Your task to perform on an android device: Search for seafood restaurants on Google Maps Image 0: 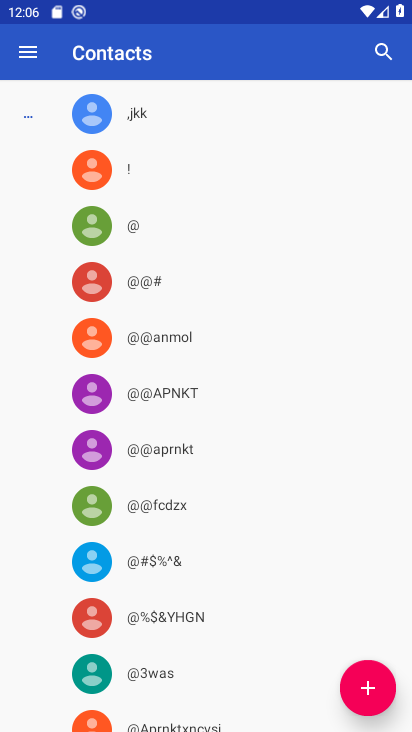
Step 0: press home button
Your task to perform on an android device: Search for seafood restaurants on Google Maps Image 1: 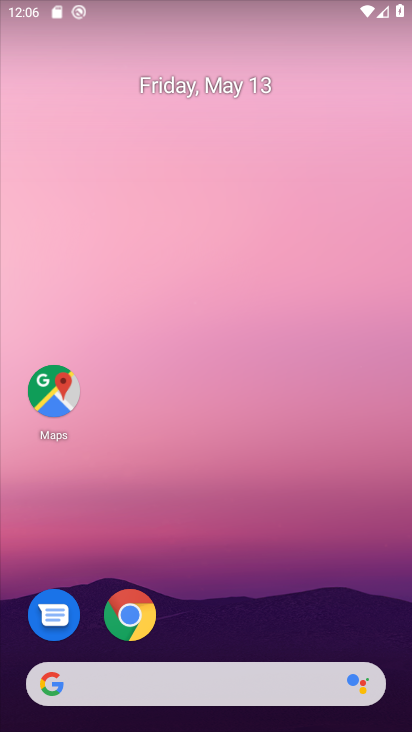
Step 1: click (53, 384)
Your task to perform on an android device: Search for seafood restaurants on Google Maps Image 2: 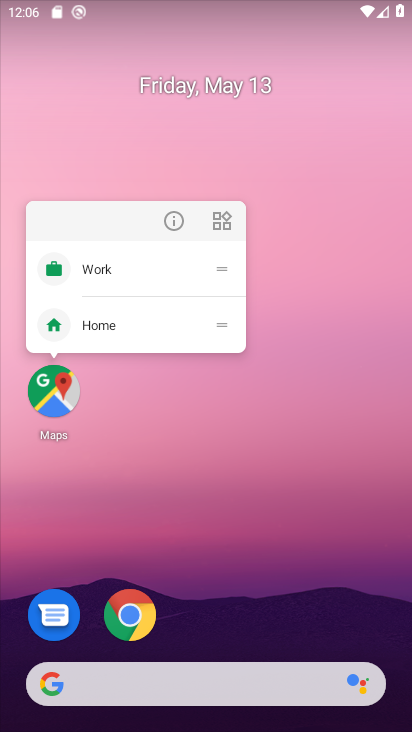
Step 2: click (26, 399)
Your task to perform on an android device: Search for seafood restaurants on Google Maps Image 3: 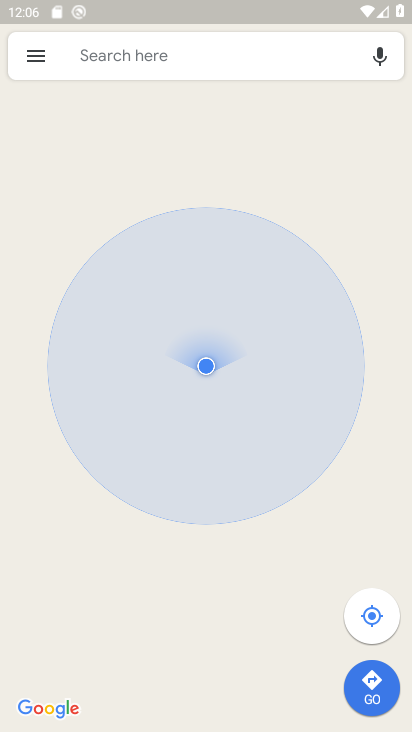
Step 3: click (211, 50)
Your task to perform on an android device: Search for seafood restaurants on Google Maps Image 4: 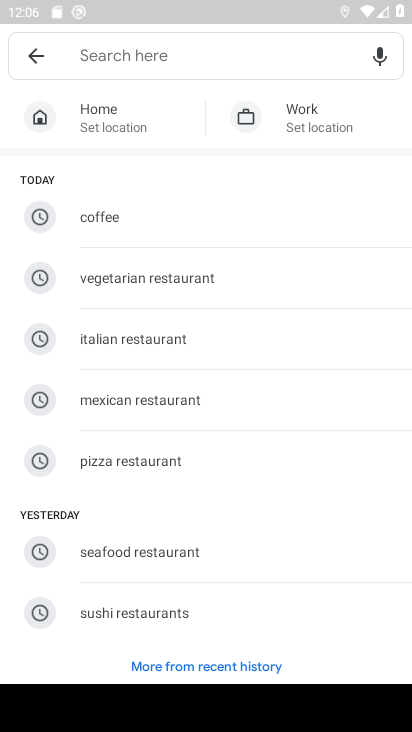
Step 4: type "seafood restaurants"
Your task to perform on an android device: Search for seafood restaurants on Google Maps Image 5: 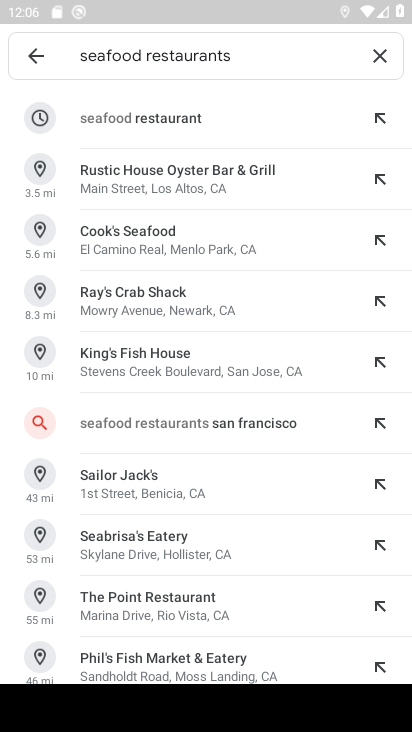
Step 5: click (235, 130)
Your task to perform on an android device: Search for seafood restaurants on Google Maps Image 6: 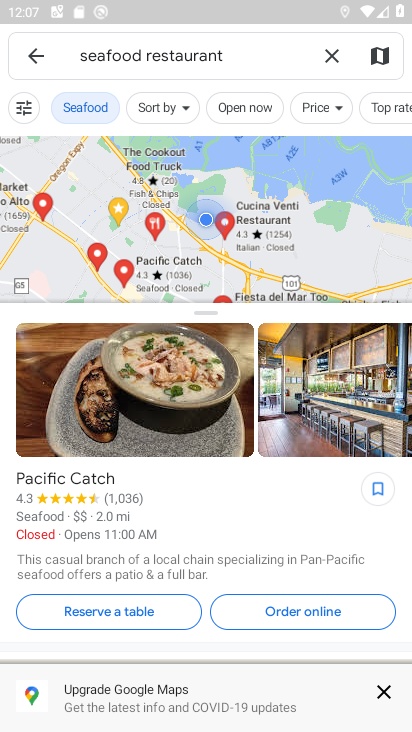
Step 6: task complete